Your task to perform on an android device: Clear the shopping cart on bestbuy. Image 0: 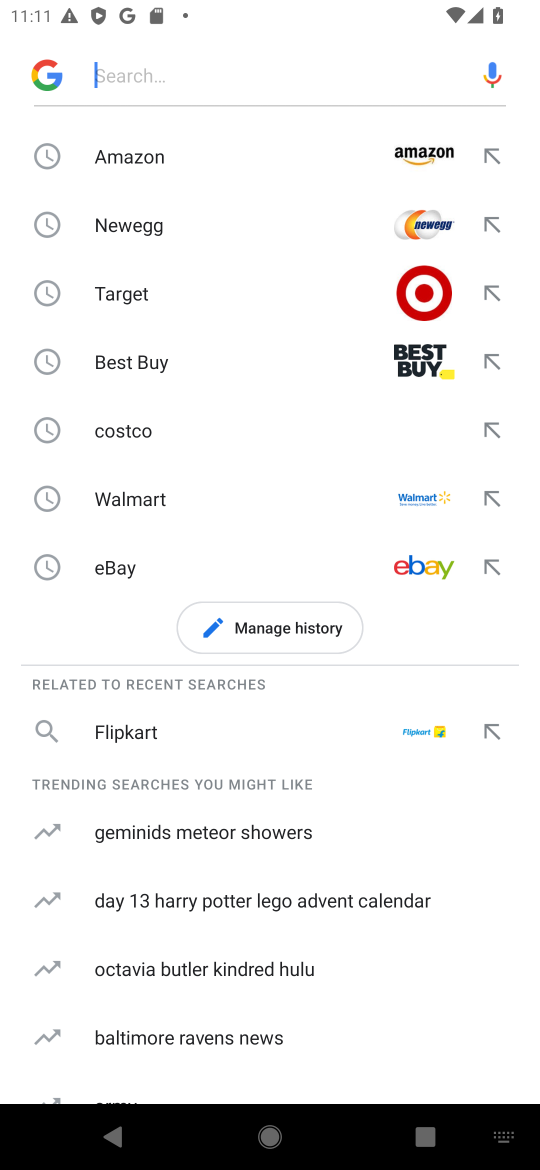
Step 0: click (137, 352)
Your task to perform on an android device: Clear the shopping cart on bestbuy. Image 1: 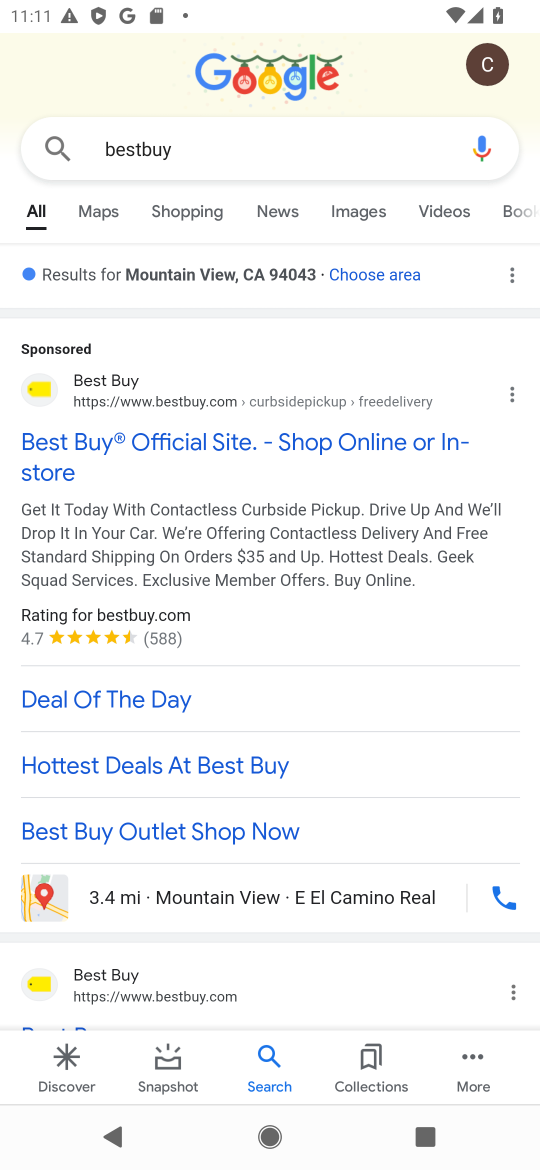
Step 1: click (134, 412)
Your task to perform on an android device: Clear the shopping cart on bestbuy. Image 2: 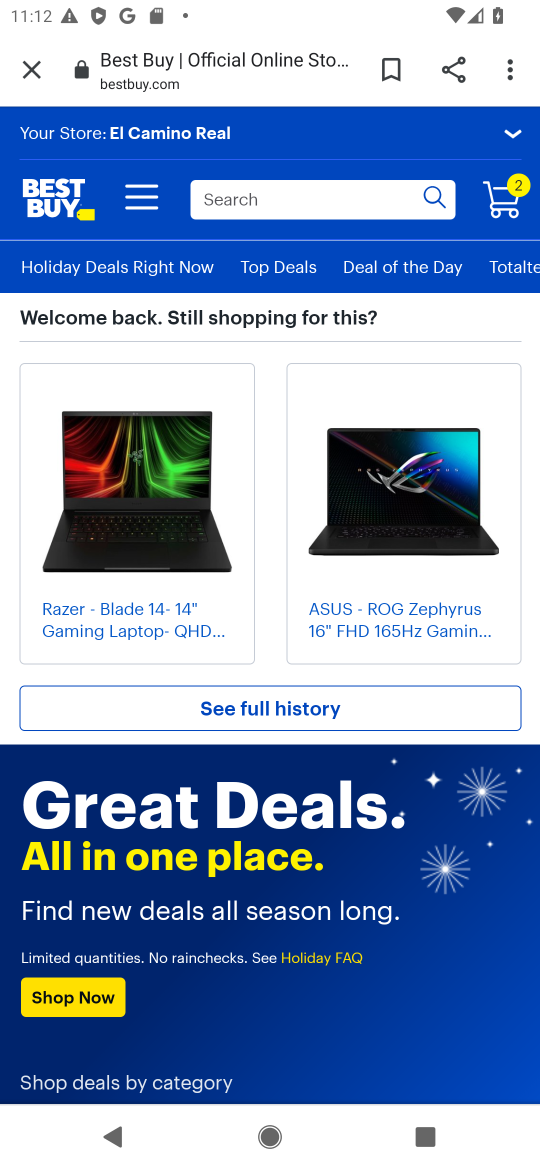
Step 2: click (512, 181)
Your task to perform on an android device: Clear the shopping cart on bestbuy. Image 3: 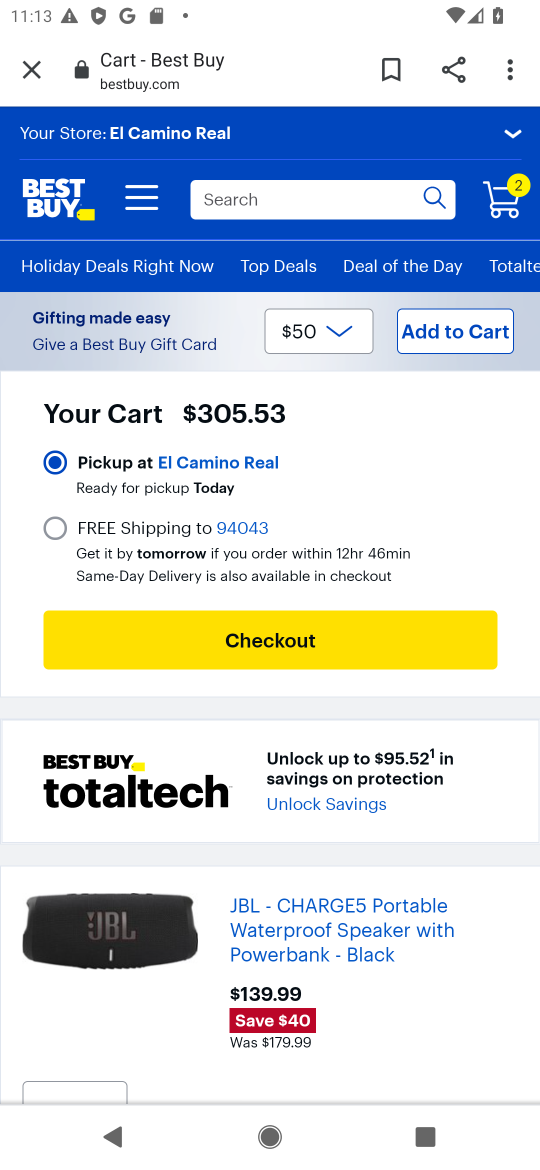
Step 3: drag from (365, 990) to (374, 470)
Your task to perform on an android device: Clear the shopping cart on bestbuy. Image 4: 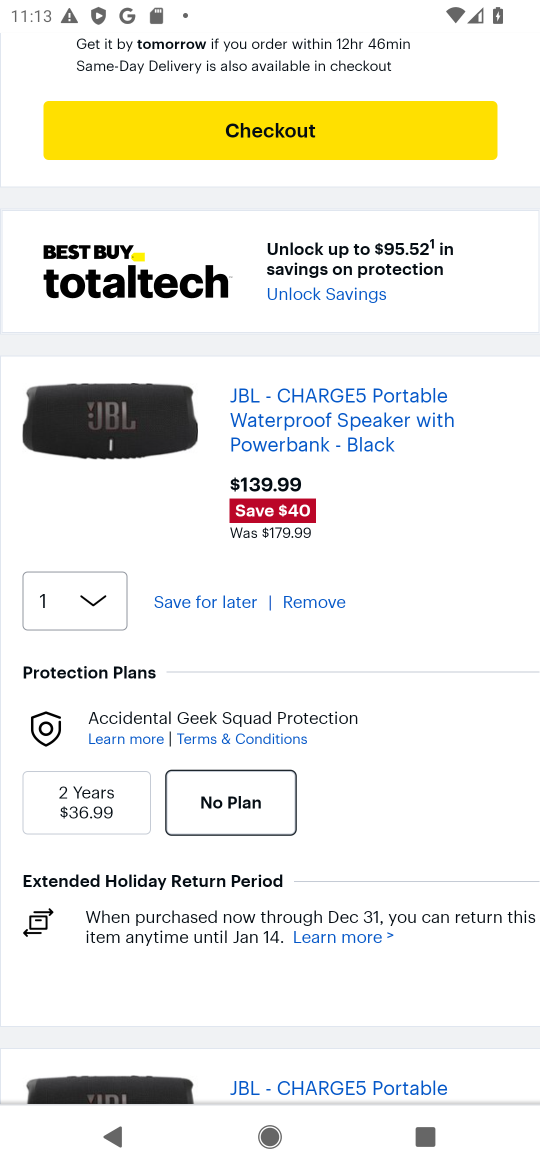
Step 4: click (314, 605)
Your task to perform on an android device: Clear the shopping cart on bestbuy. Image 5: 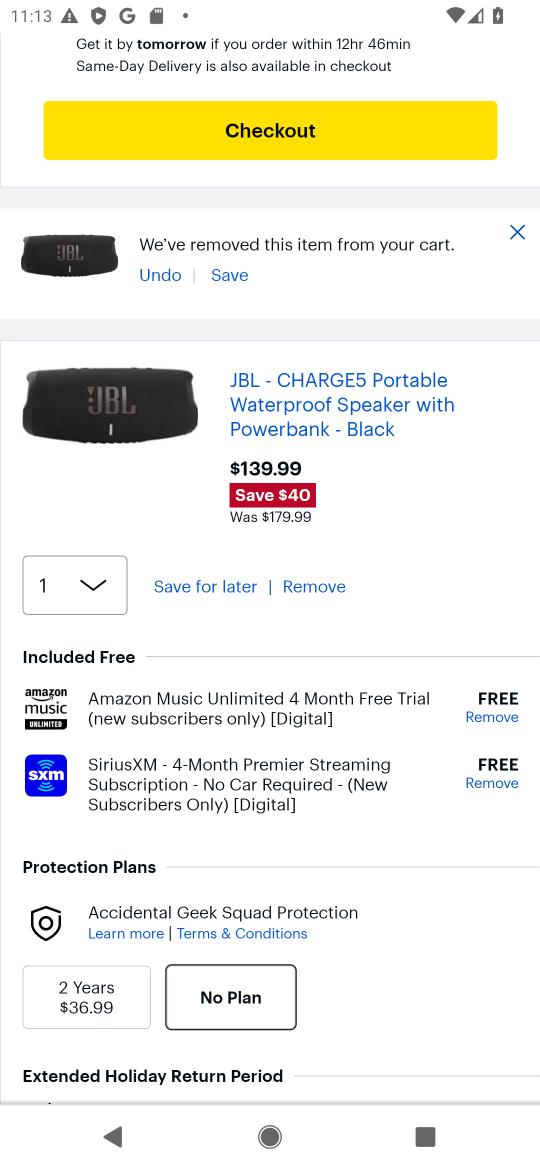
Step 5: click (304, 586)
Your task to perform on an android device: Clear the shopping cart on bestbuy. Image 6: 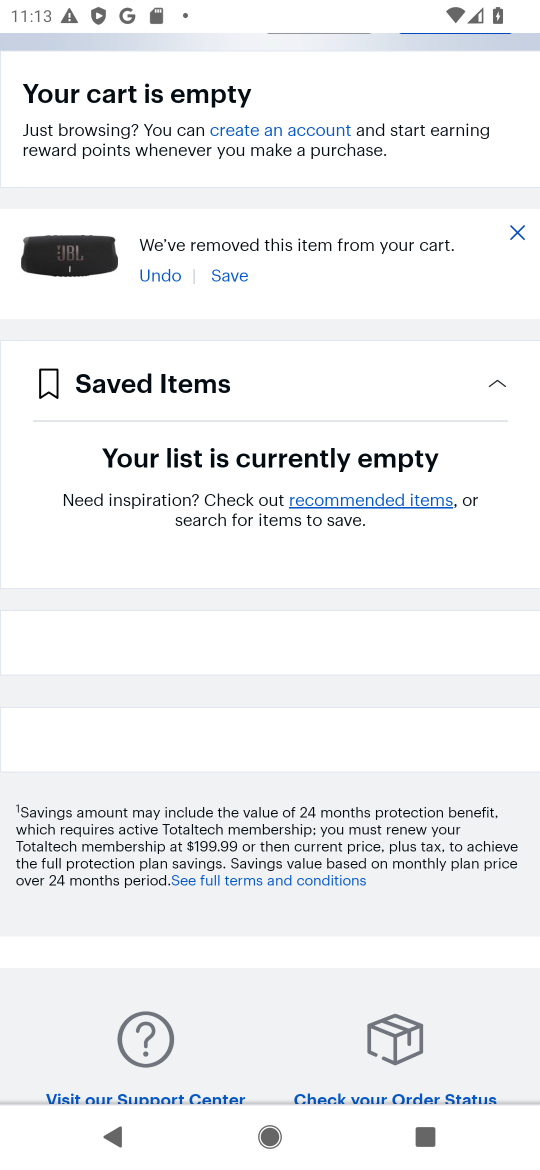
Step 6: task complete